Your task to perform on an android device: Search for Mexican restaurants on Maps Image 0: 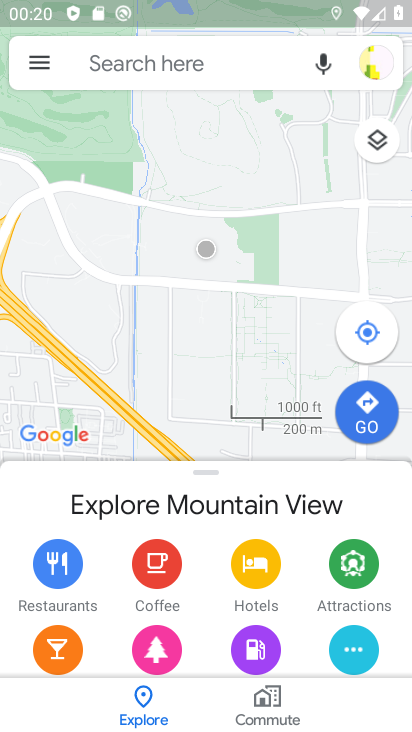
Step 0: click (245, 60)
Your task to perform on an android device: Search for Mexican restaurants on Maps Image 1: 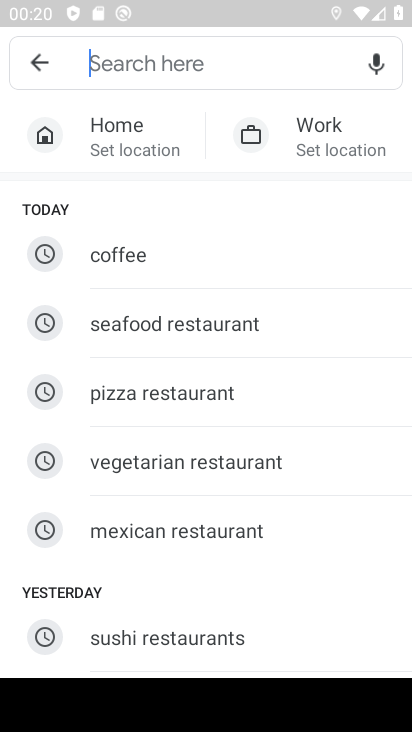
Step 1: click (183, 524)
Your task to perform on an android device: Search for Mexican restaurants on Maps Image 2: 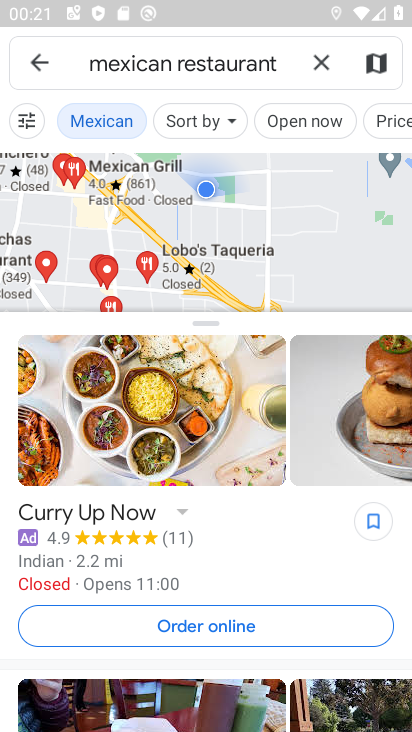
Step 2: task complete